Your task to perform on an android device: Go to calendar. Show me events next week Image 0: 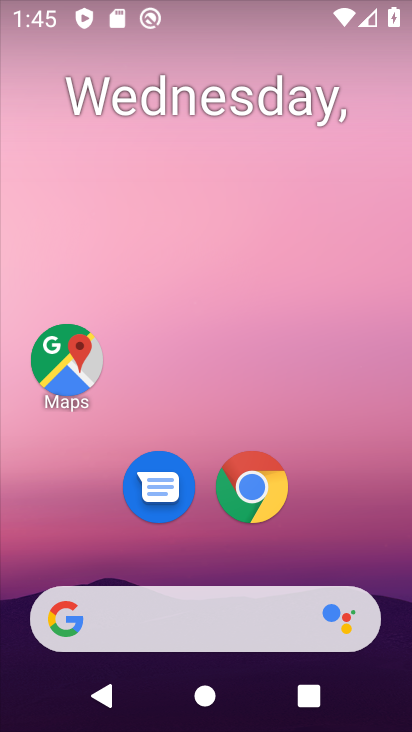
Step 0: drag from (298, 537) to (290, 52)
Your task to perform on an android device: Go to calendar. Show me events next week Image 1: 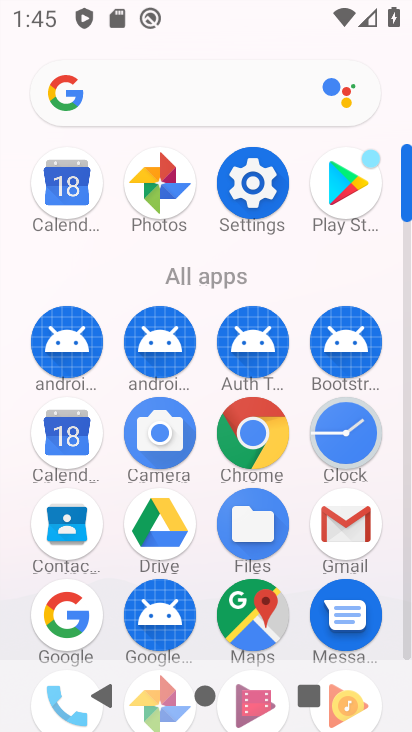
Step 1: click (71, 456)
Your task to perform on an android device: Go to calendar. Show me events next week Image 2: 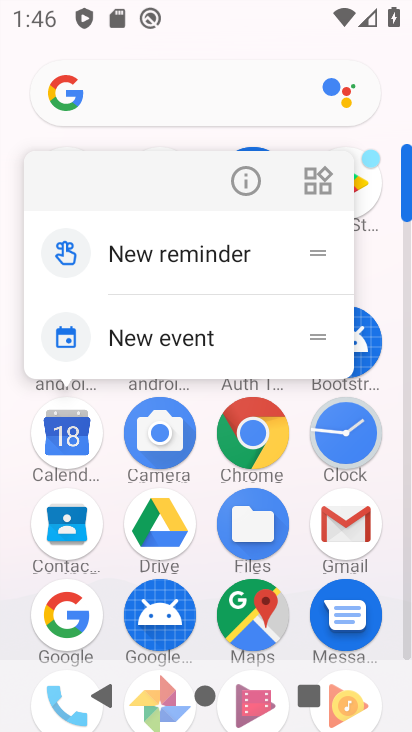
Step 2: click (70, 455)
Your task to perform on an android device: Go to calendar. Show me events next week Image 3: 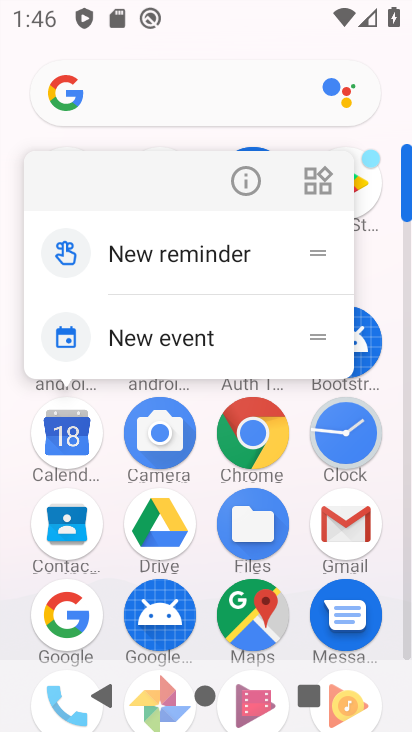
Step 3: click (67, 464)
Your task to perform on an android device: Go to calendar. Show me events next week Image 4: 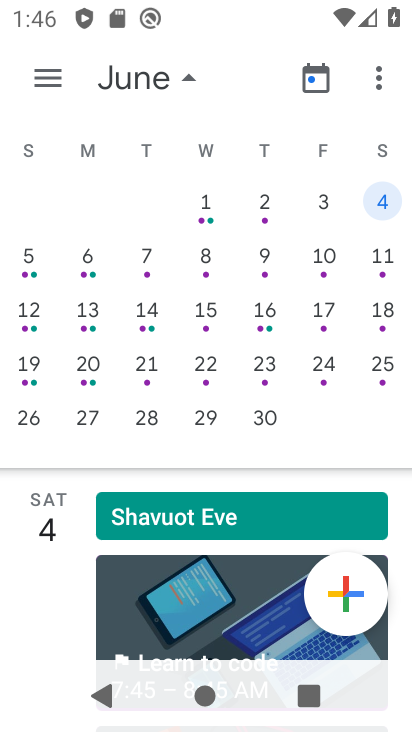
Step 4: drag from (53, 297) to (357, 296)
Your task to perform on an android device: Go to calendar. Show me events next week Image 5: 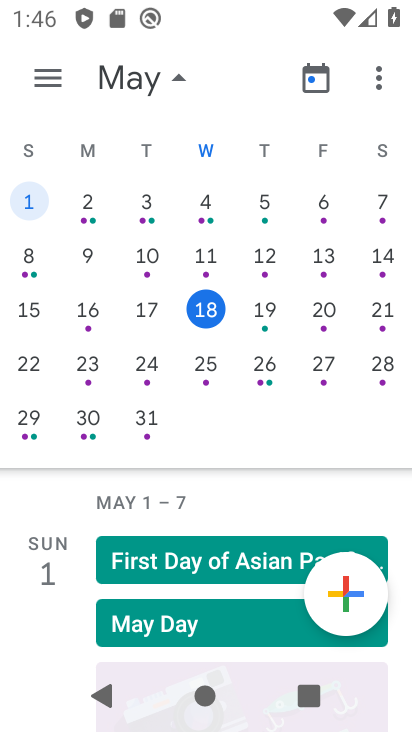
Step 5: click (17, 368)
Your task to perform on an android device: Go to calendar. Show me events next week Image 6: 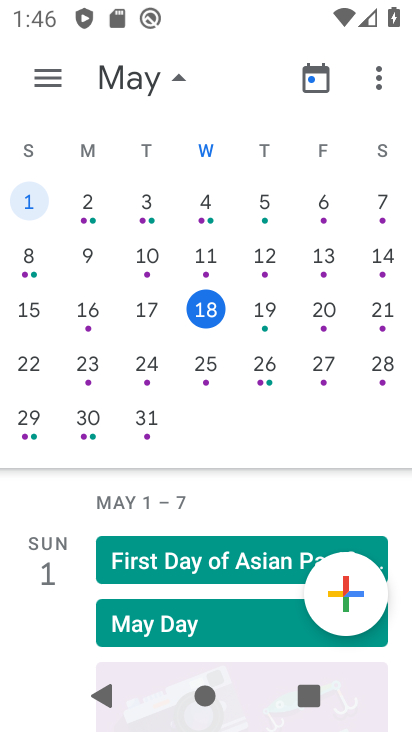
Step 6: click (83, 375)
Your task to perform on an android device: Go to calendar. Show me events next week Image 7: 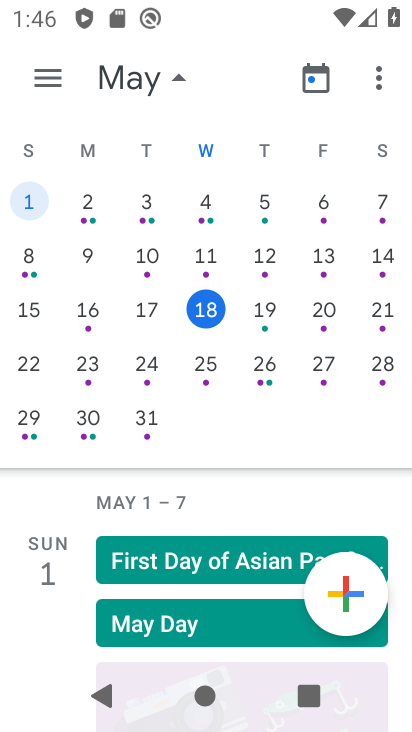
Step 7: click (147, 377)
Your task to perform on an android device: Go to calendar. Show me events next week Image 8: 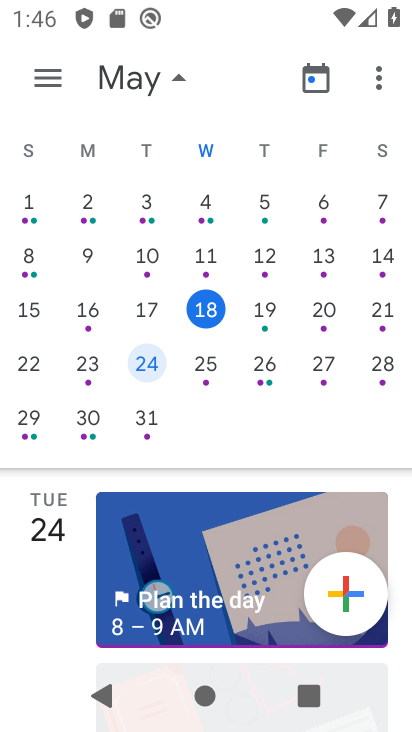
Step 8: click (199, 377)
Your task to perform on an android device: Go to calendar. Show me events next week Image 9: 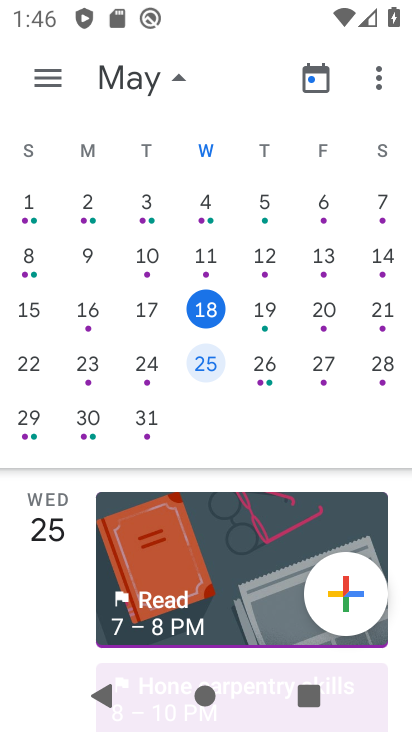
Step 9: click (263, 381)
Your task to perform on an android device: Go to calendar. Show me events next week Image 10: 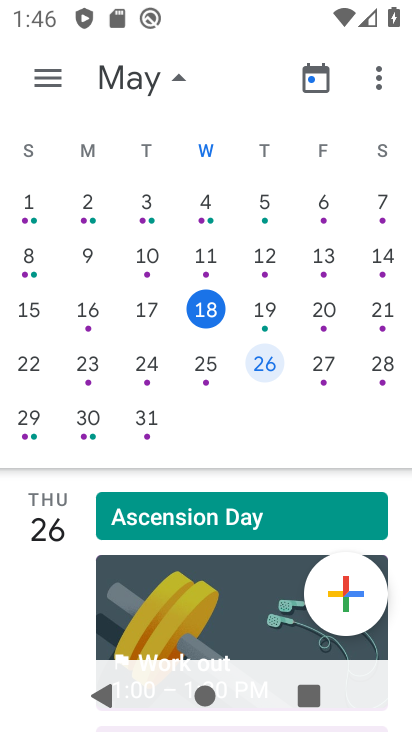
Step 10: click (320, 381)
Your task to perform on an android device: Go to calendar. Show me events next week Image 11: 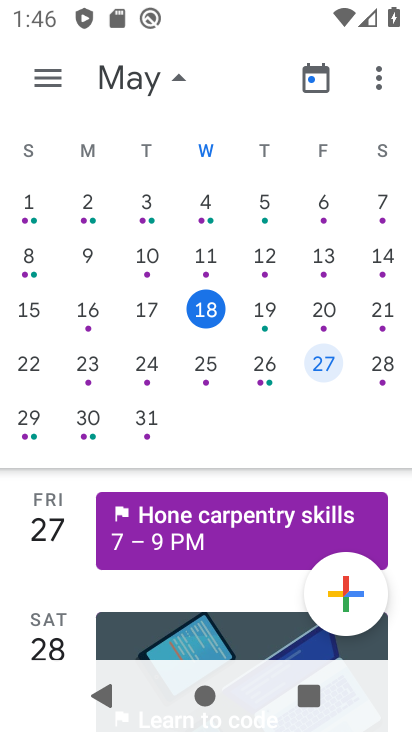
Step 11: click (391, 379)
Your task to perform on an android device: Go to calendar. Show me events next week Image 12: 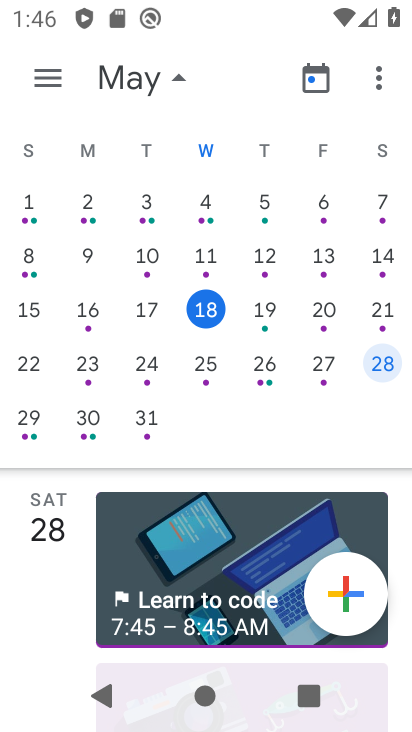
Step 12: task complete